Your task to perform on an android device: Search for pizza restaurants on Maps Image 0: 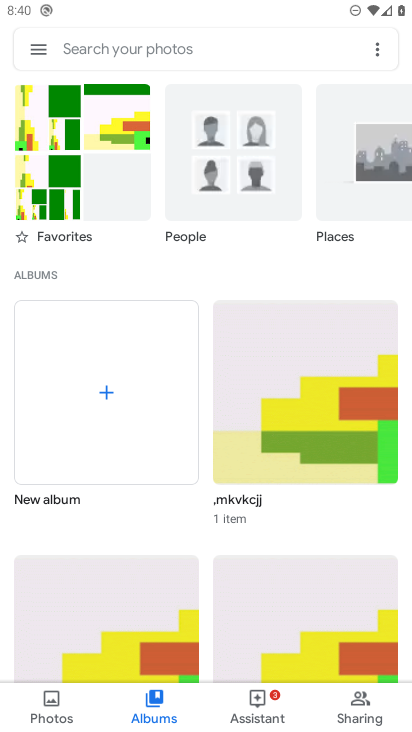
Step 0: press home button
Your task to perform on an android device: Search for pizza restaurants on Maps Image 1: 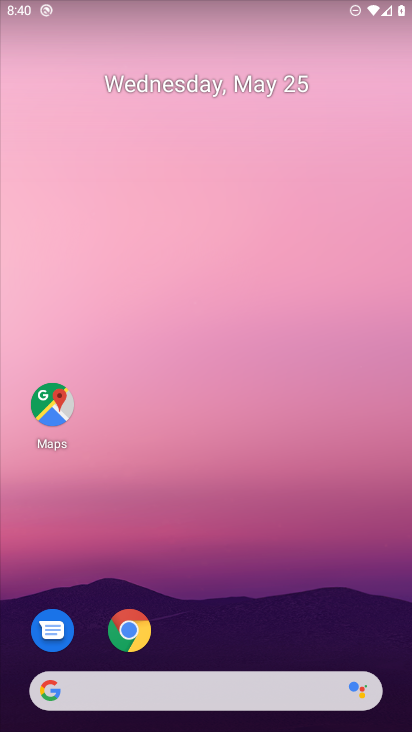
Step 1: click (51, 405)
Your task to perform on an android device: Search for pizza restaurants on Maps Image 2: 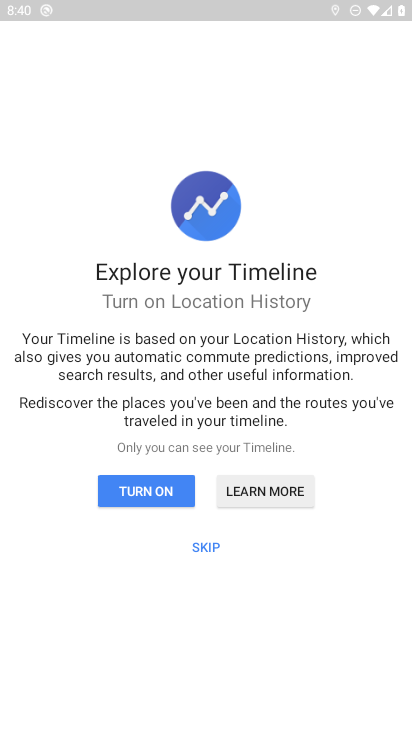
Step 2: click (252, 489)
Your task to perform on an android device: Search for pizza restaurants on Maps Image 3: 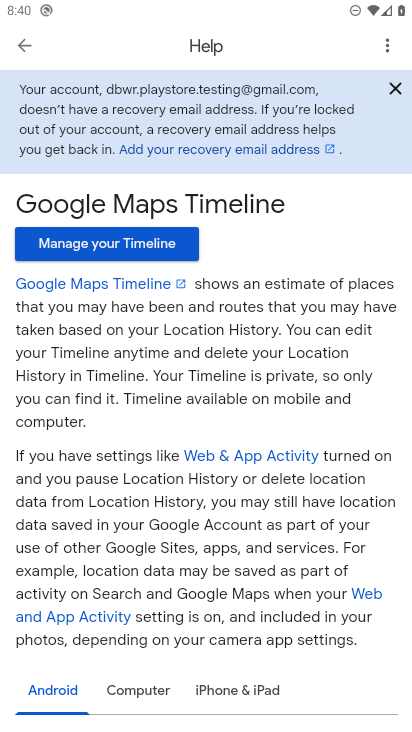
Step 3: click (21, 45)
Your task to perform on an android device: Search for pizza restaurants on Maps Image 4: 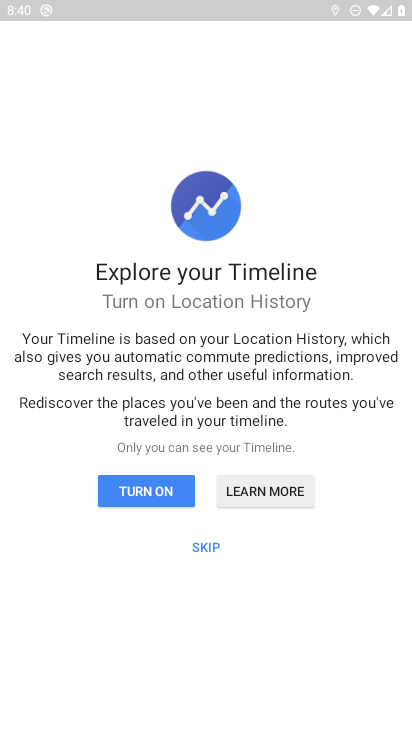
Step 4: click (204, 542)
Your task to perform on an android device: Search for pizza restaurants on Maps Image 5: 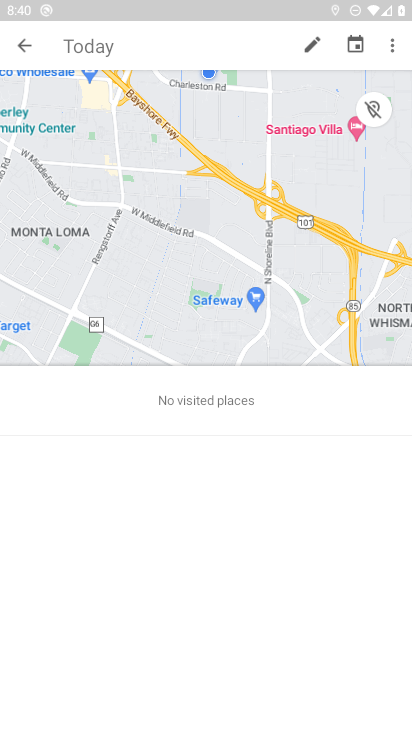
Step 5: click (16, 49)
Your task to perform on an android device: Search for pizza restaurants on Maps Image 6: 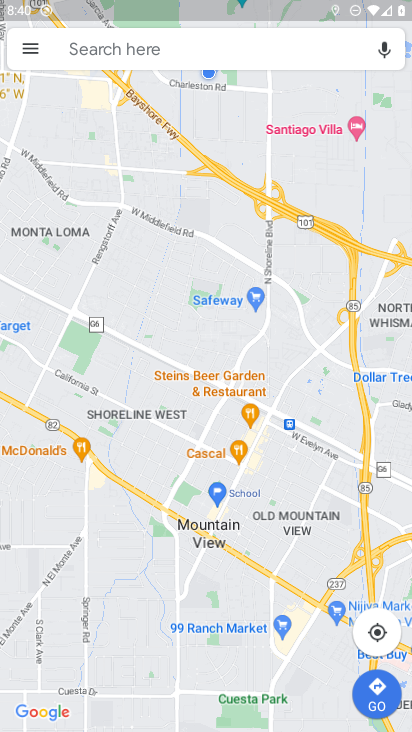
Step 6: click (111, 39)
Your task to perform on an android device: Search for pizza restaurants on Maps Image 7: 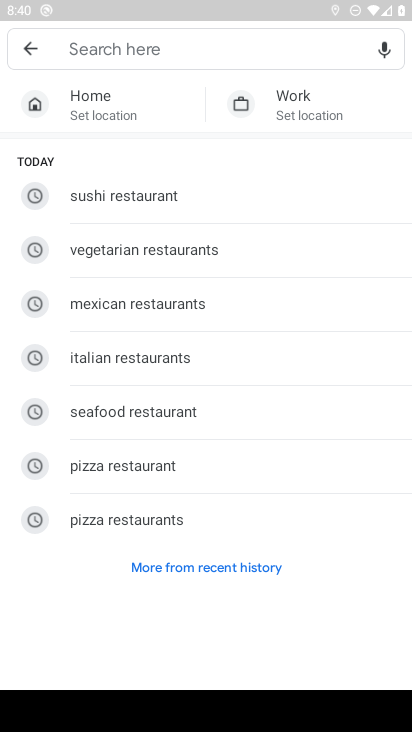
Step 7: click (158, 462)
Your task to perform on an android device: Search for pizza restaurants on Maps Image 8: 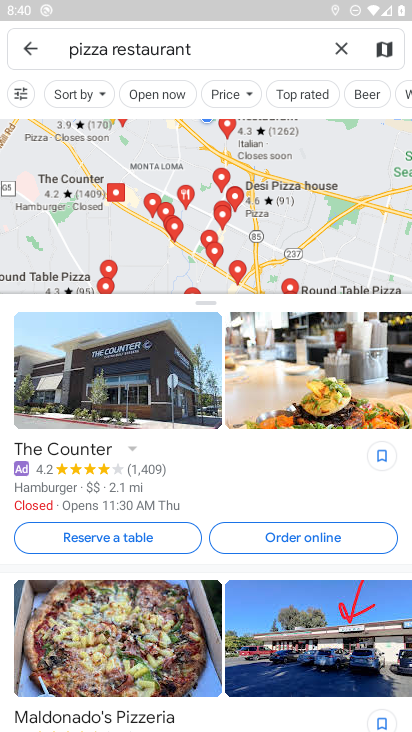
Step 8: task complete